Your task to perform on an android device: When is my next meeting? Image 0: 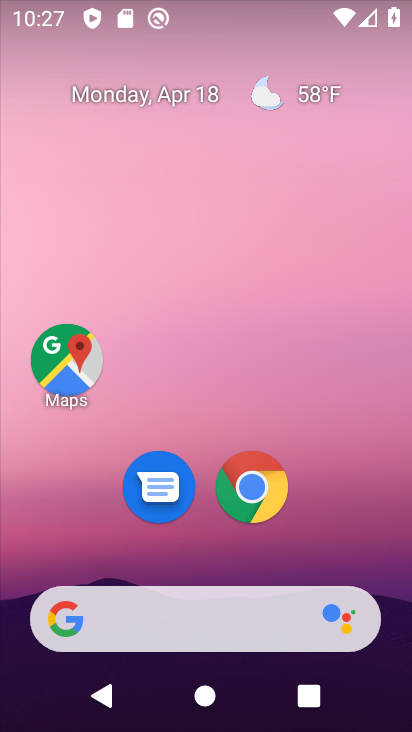
Step 0: drag from (359, 482) to (387, 29)
Your task to perform on an android device: When is my next meeting? Image 1: 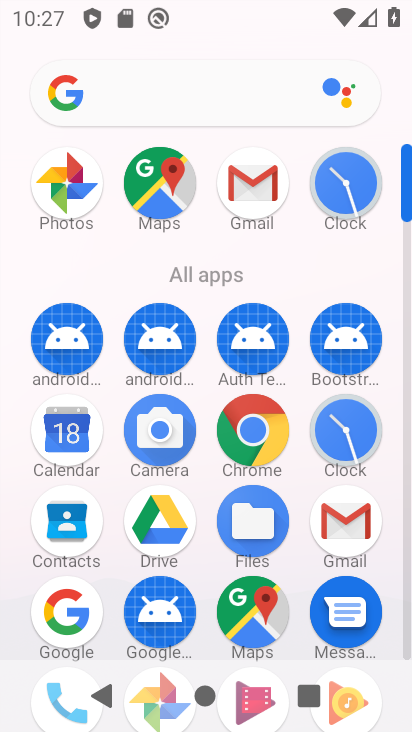
Step 1: click (73, 431)
Your task to perform on an android device: When is my next meeting? Image 2: 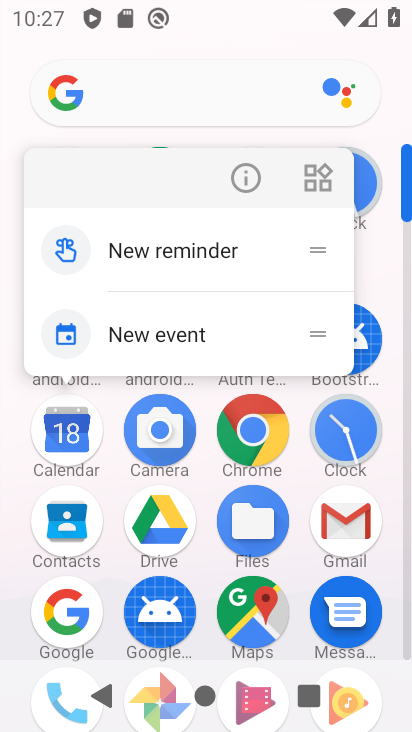
Step 2: click (74, 423)
Your task to perform on an android device: When is my next meeting? Image 3: 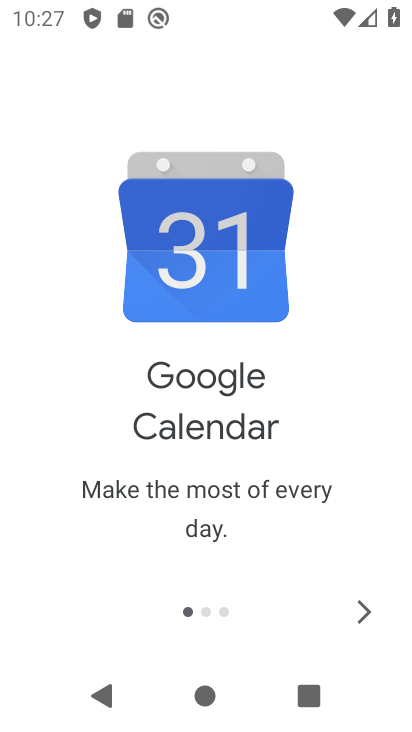
Step 3: click (365, 620)
Your task to perform on an android device: When is my next meeting? Image 4: 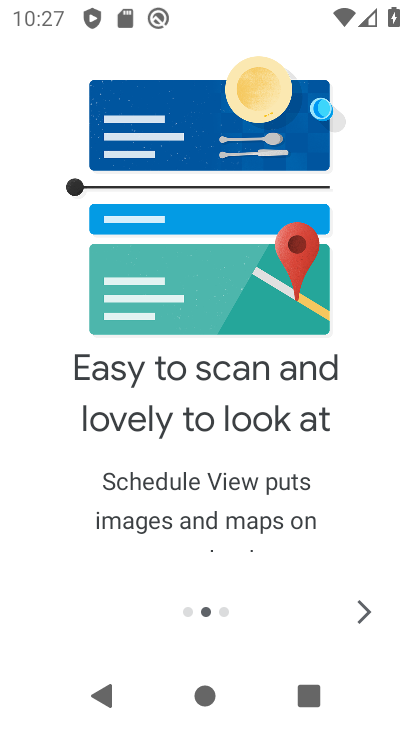
Step 4: click (364, 620)
Your task to perform on an android device: When is my next meeting? Image 5: 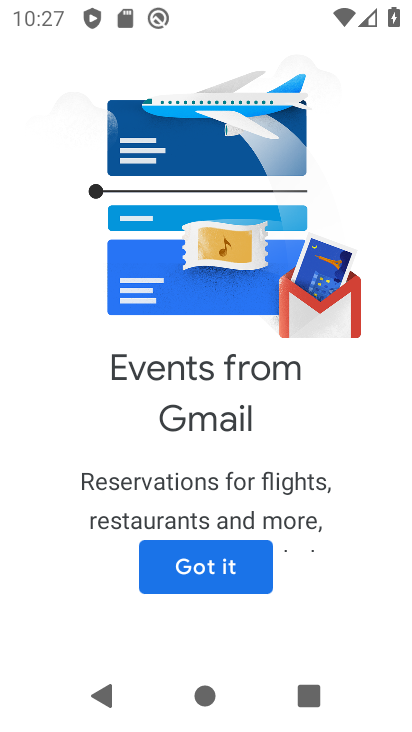
Step 5: click (251, 577)
Your task to perform on an android device: When is my next meeting? Image 6: 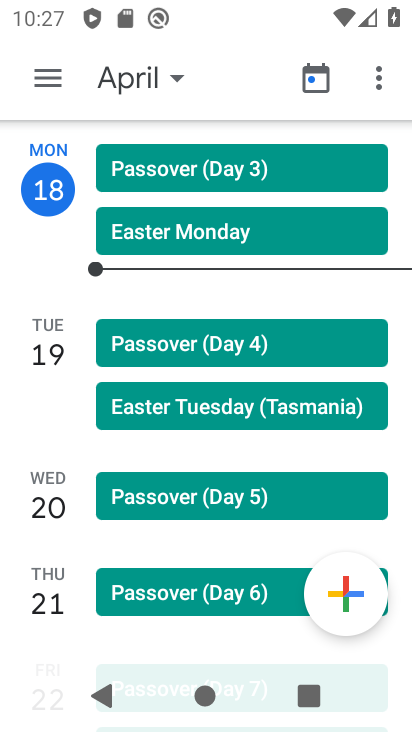
Step 6: drag from (153, 453) to (122, 137)
Your task to perform on an android device: When is my next meeting? Image 7: 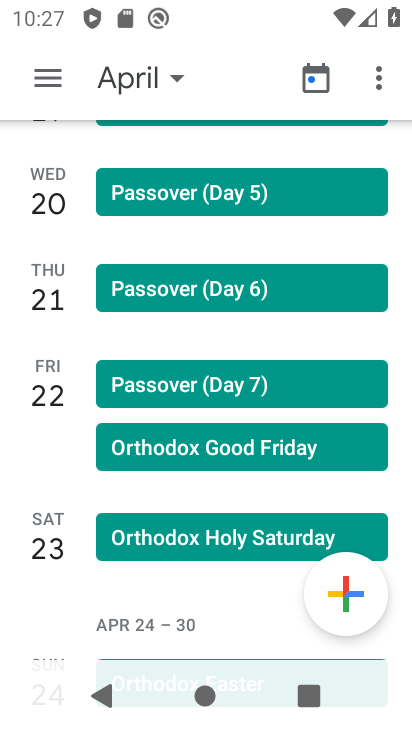
Step 7: drag from (108, 493) to (92, 192)
Your task to perform on an android device: When is my next meeting? Image 8: 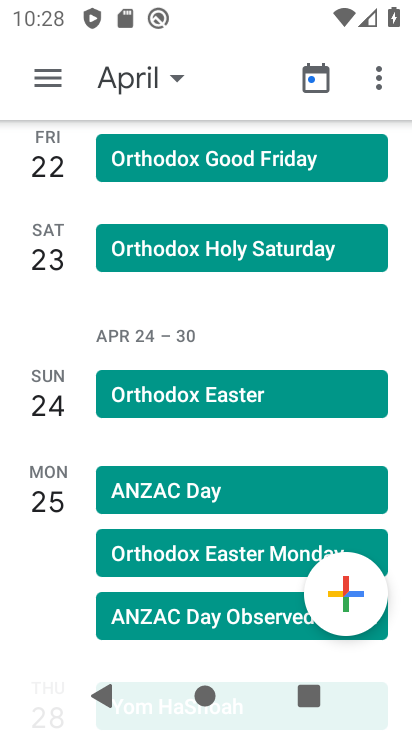
Step 8: click (54, 98)
Your task to perform on an android device: When is my next meeting? Image 9: 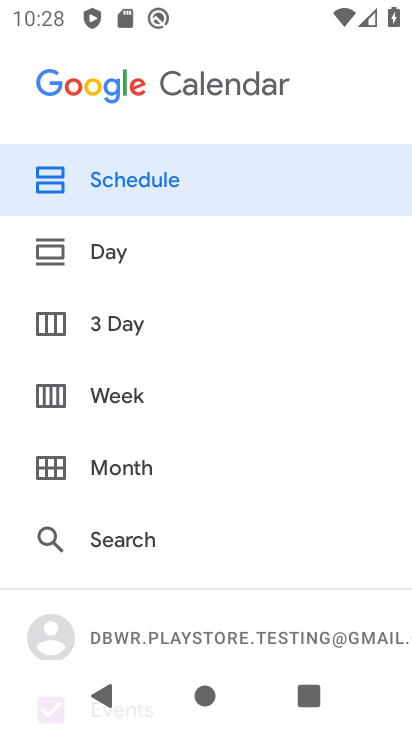
Step 9: drag from (89, 467) to (107, 147)
Your task to perform on an android device: When is my next meeting? Image 10: 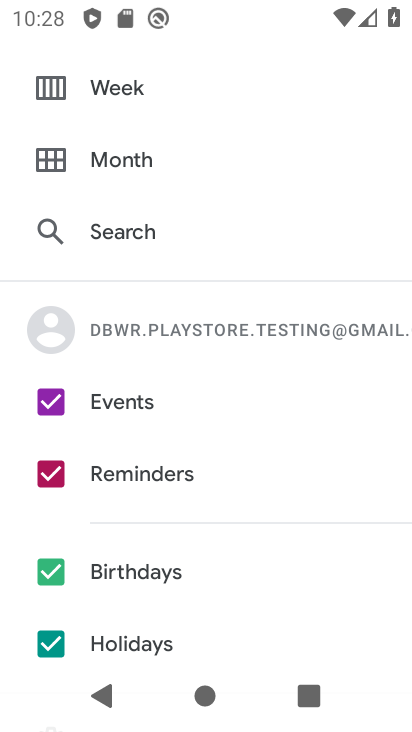
Step 10: drag from (377, 290) to (9, 292)
Your task to perform on an android device: When is my next meeting? Image 11: 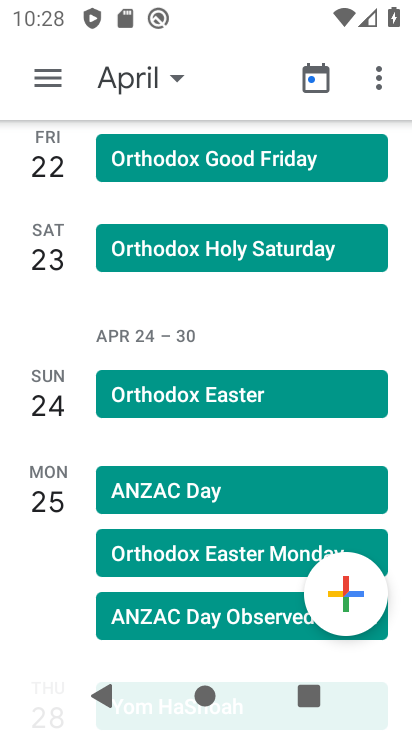
Step 11: drag from (244, 490) to (193, 149)
Your task to perform on an android device: When is my next meeting? Image 12: 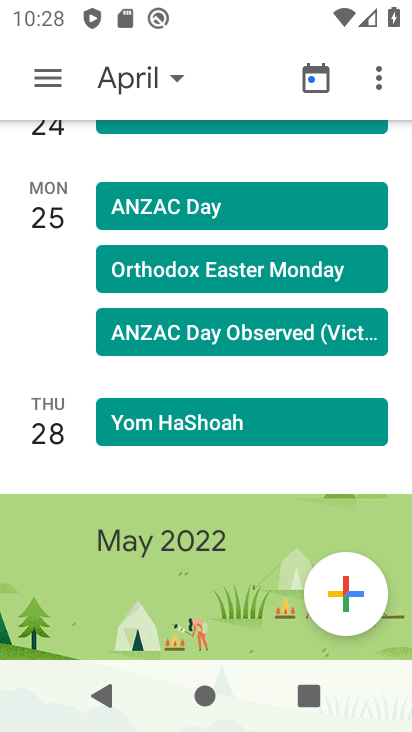
Step 12: drag from (179, 449) to (169, 152)
Your task to perform on an android device: When is my next meeting? Image 13: 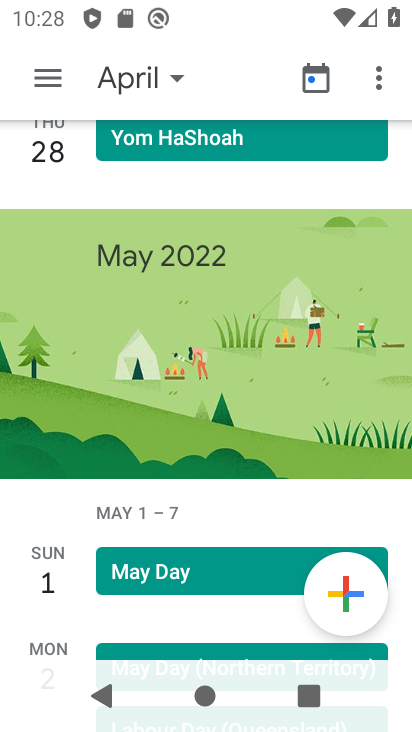
Step 13: drag from (174, 492) to (160, 145)
Your task to perform on an android device: When is my next meeting? Image 14: 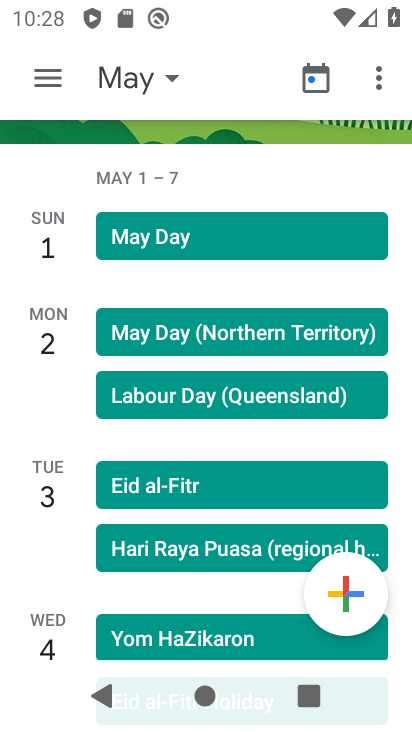
Step 14: drag from (223, 606) to (203, 221)
Your task to perform on an android device: When is my next meeting? Image 15: 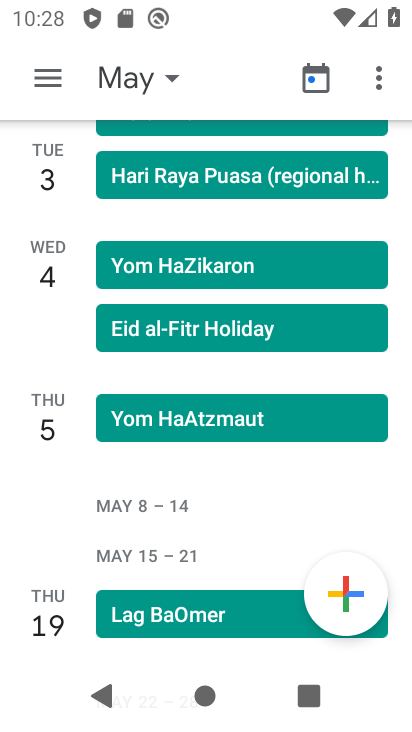
Step 15: drag from (240, 569) to (207, 199)
Your task to perform on an android device: When is my next meeting? Image 16: 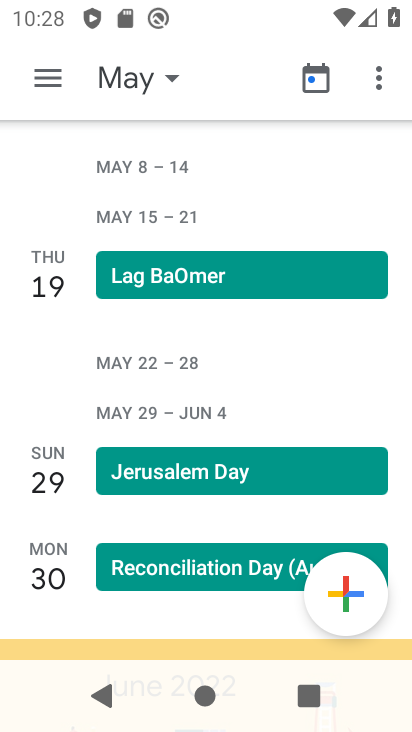
Step 16: drag from (194, 579) to (177, 86)
Your task to perform on an android device: When is my next meeting? Image 17: 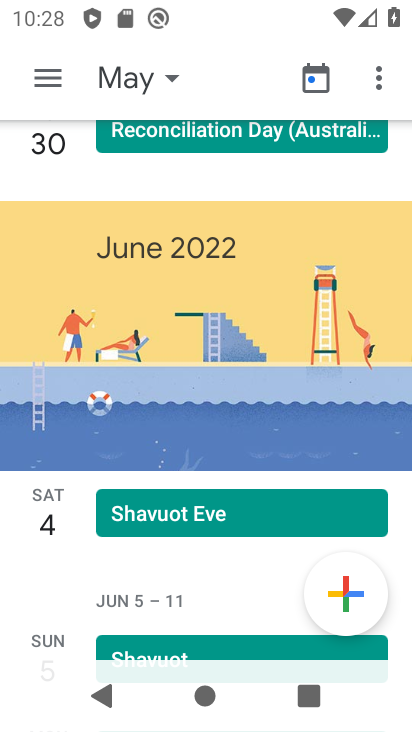
Step 17: drag from (156, 602) to (134, 99)
Your task to perform on an android device: When is my next meeting? Image 18: 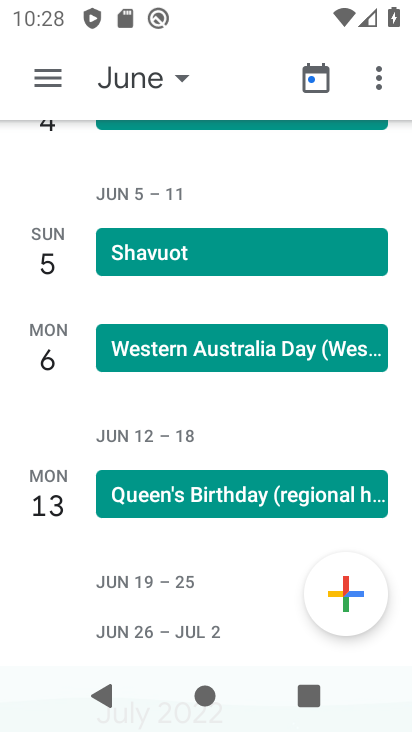
Step 18: drag from (181, 571) to (151, 77)
Your task to perform on an android device: When is my next meeting? Image 19: 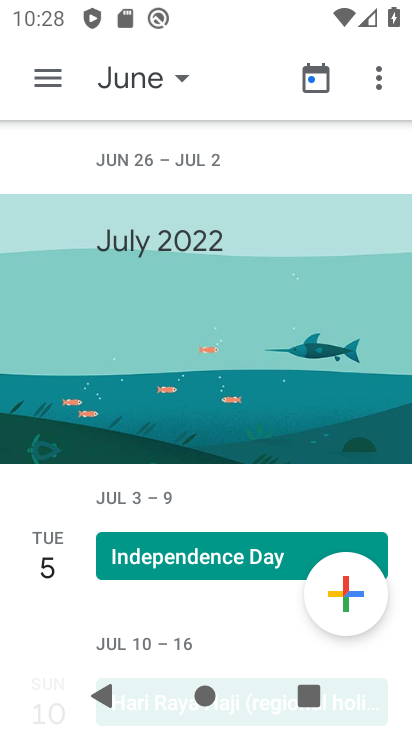
Step 19: drag from (166, 496) to (152, 147)
Your task to perform on an android device: When is my next meeting? Image 20: 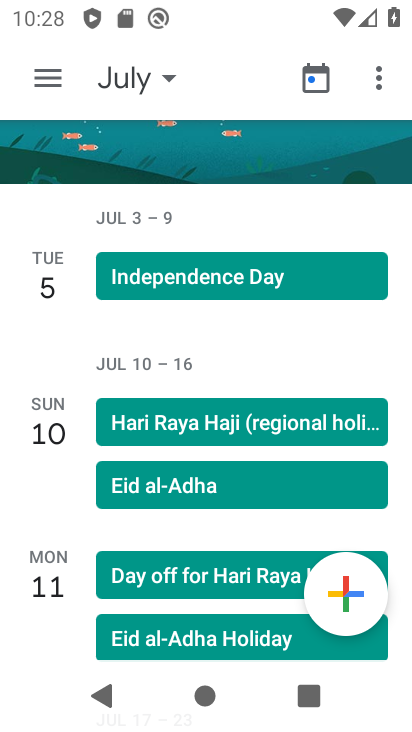
Step 20: click (57, 69)
Your task to perform on an android device: When is my next meeting? Image 21: 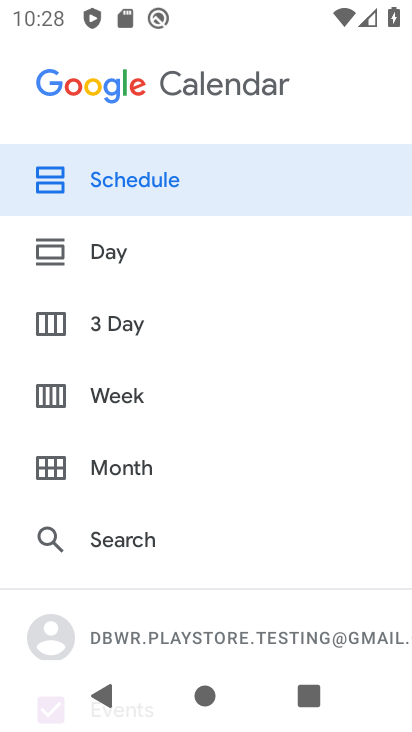
Step 21: drag from (193, 571) to (179, 209)
Your task to perform on an android device: When is my next meeting? Image 22: 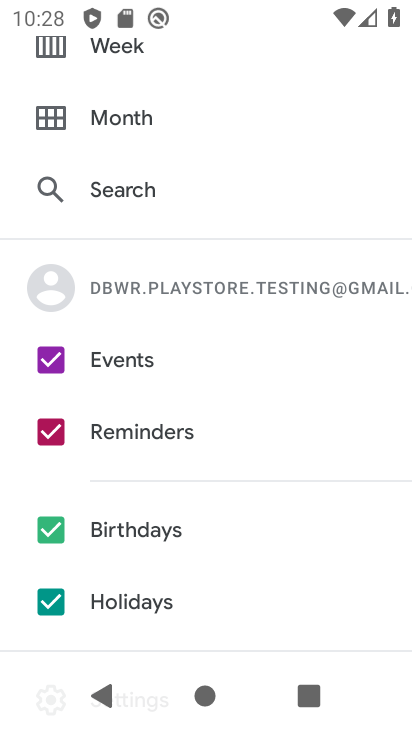
Step 22: click (61, 602)
Your task to perform on an android device: When is my next meeting? Image 23: 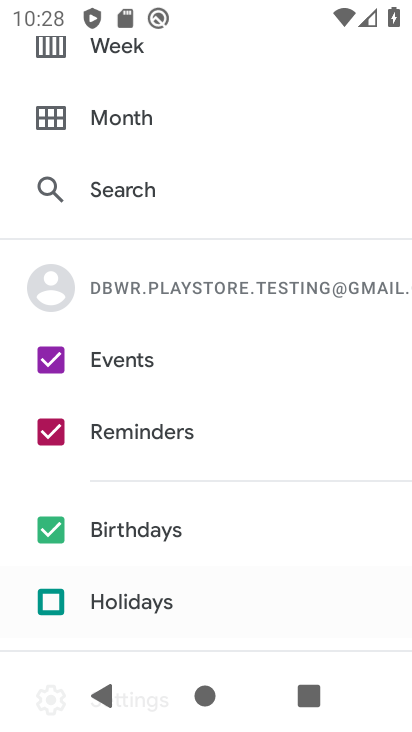
Step 23: click (56, 529)
Your task to perform on an android device: When is my next meeting? Image 24: 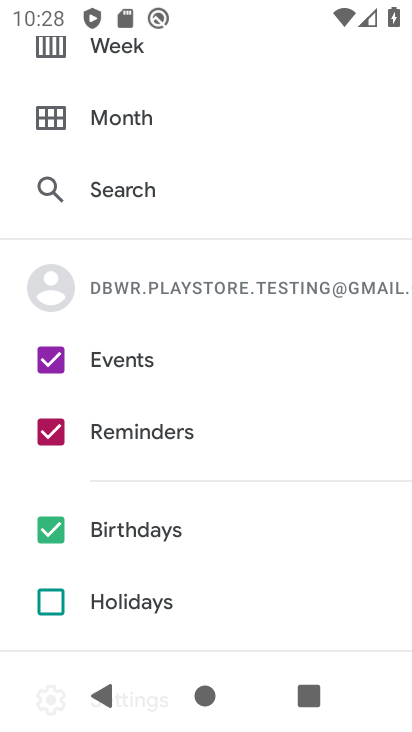
Step 24: click (51, 533)
Your task to perform on an android device: When is my next meeting? Image 25: 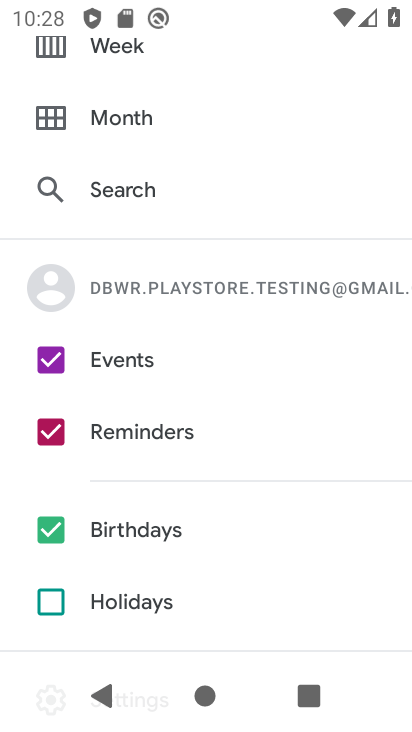
Step 25: click (41, 532)
Your task to perform on an android device: When is my next meeting? Image 26: 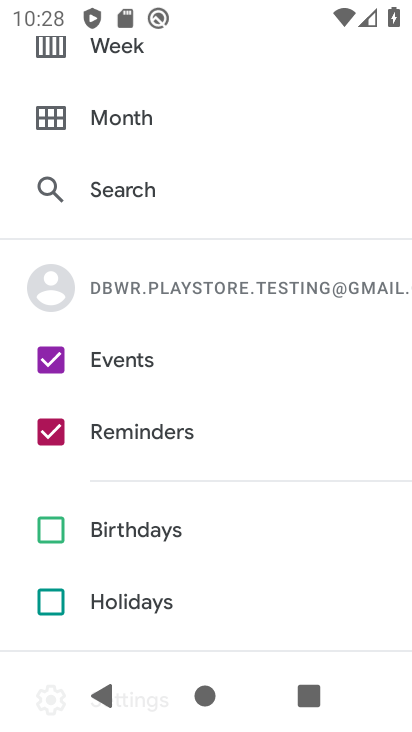
Step 26: drag from (397, 468) to (4, 426)
Your task to perform on an android device: When is my next meeting? Image 27: 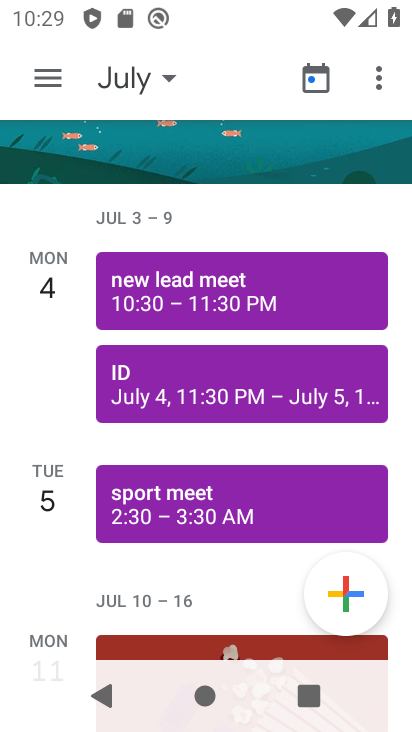
Step 27: drag from (207, 215) to (208, 599)
Your task to perform on an android device: When is my next meeting? Image 28: 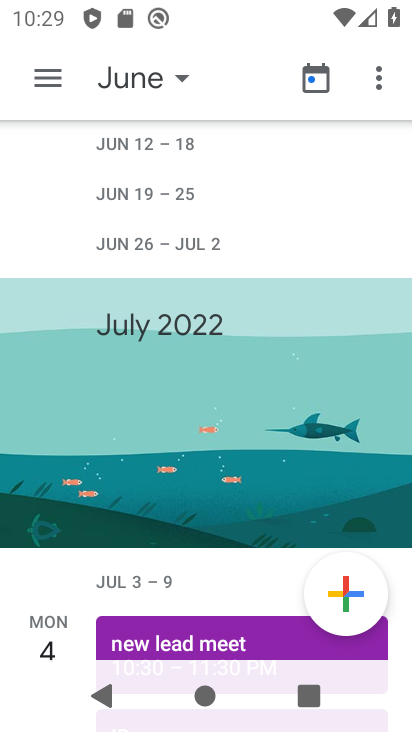
Step 28: drag from (181, 360) to (182, 248)
Your task to perform on an android device: When is my next meeting? Image 29: 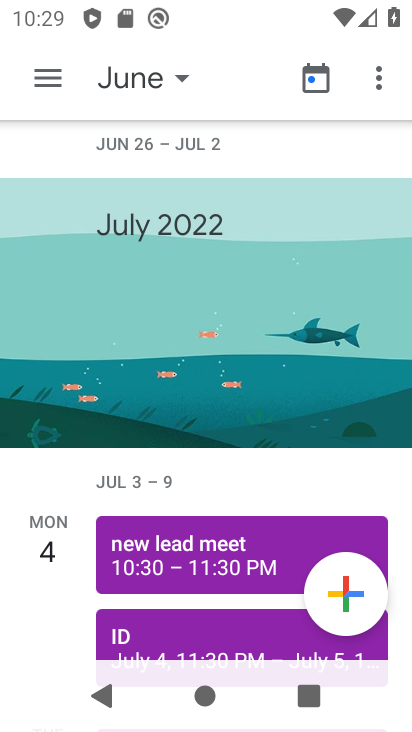
Step 29: click (193, 531)
Your task to perform on an android device: When is my next meeting? Image 30: 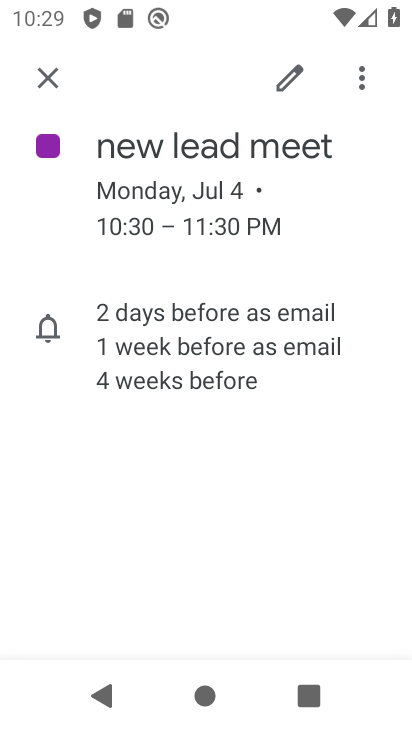
Step 30: task complete